Your task to perform on an android device: turn off notifications in google photos Image 0: 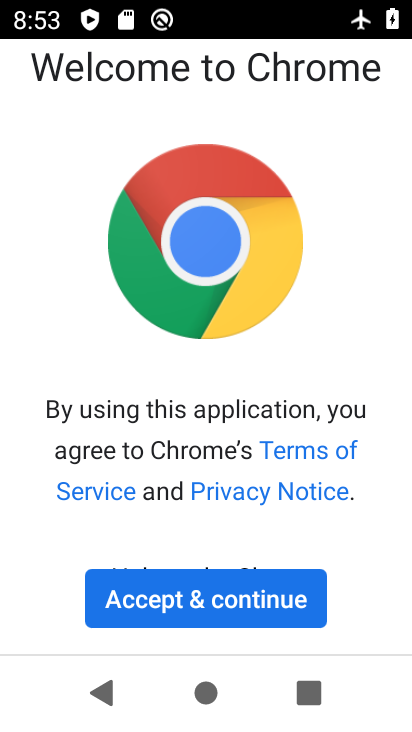
Step 0: press home button
Your task to perform on an android device: turn off notifications in google photos Image 1: 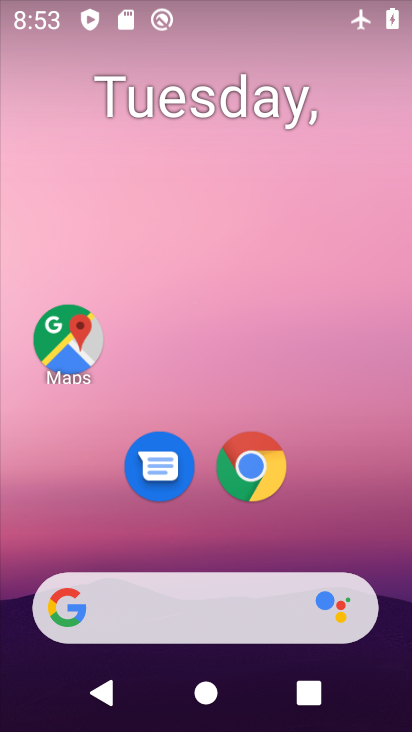
Step 1: drag from (332, 522) to (333, 155)
Your task to perform on an android device: turn off notifications in google photos Image 2: 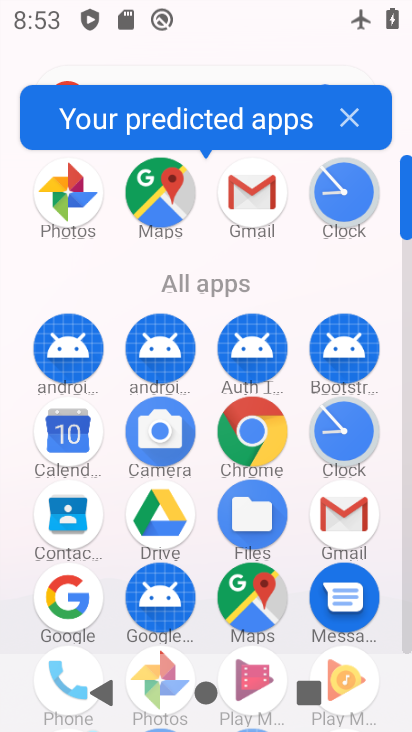
Step 2: drag from (299, 584) to (341, 318)
Your task to perform on an android device: turn off notifications in google photos Image 3: 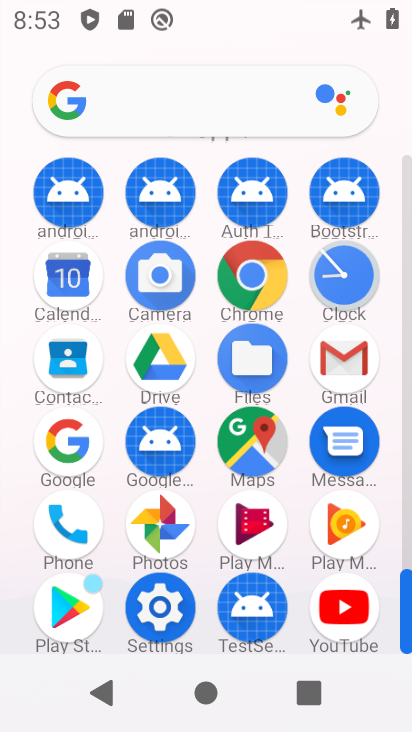
Step 3: click (163, 524)
Your task to perform on an android device: turn off notifications in google photos Image 4: 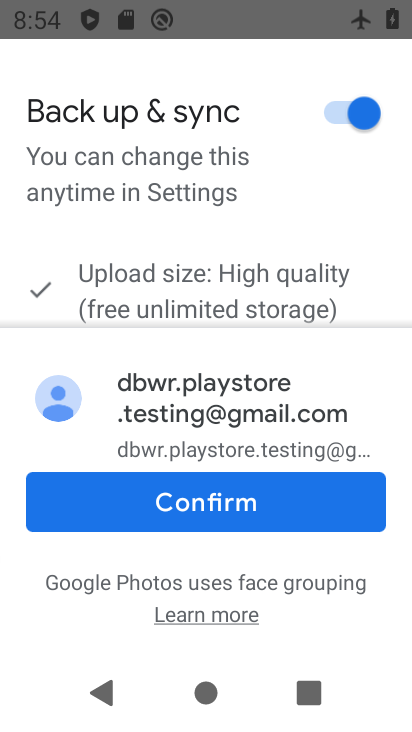
Step 4: click (182, 509)
Your task to perform on an android device: turn off notifications in google photos Image 5: 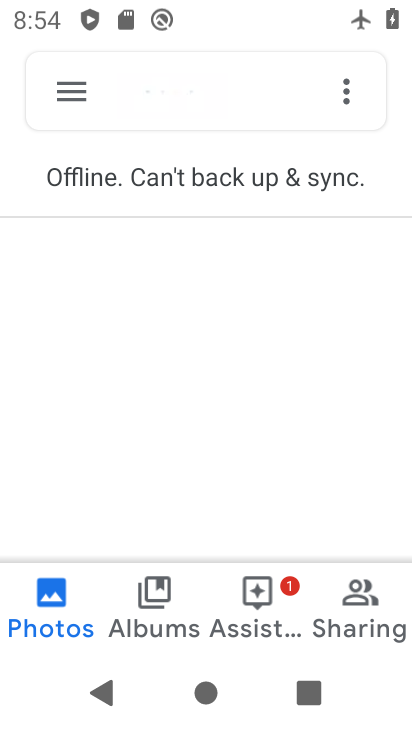
Step 5: click (79, 90)
Your task to perform on an android device: turn off notifications in google photos Image 6: 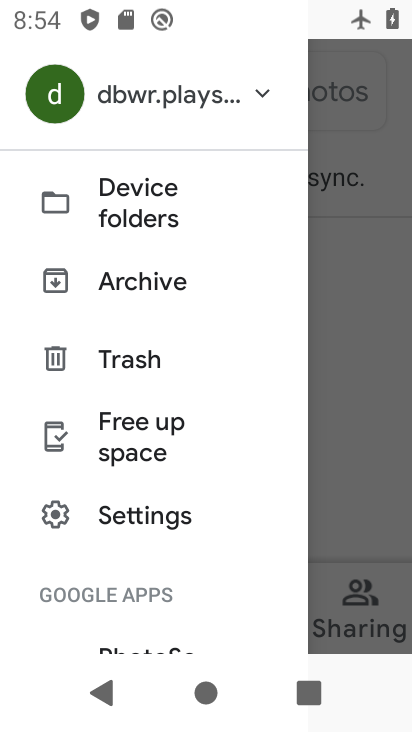
Step 6: drag from (143, 574) to (302, 87)
Your task to perform on an android device: turn off notifications in google photos Image 7: 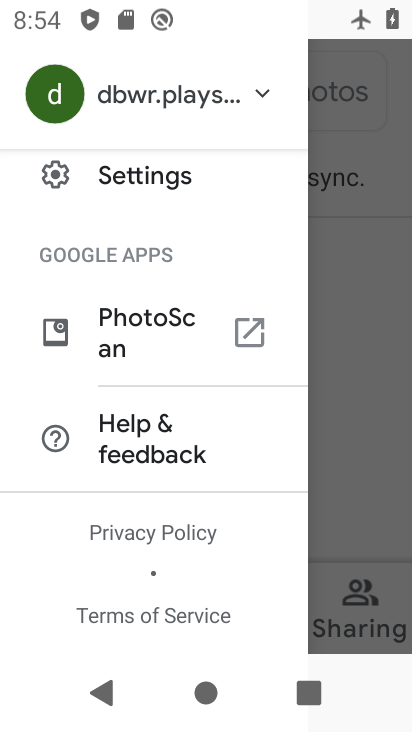
Step 7: drag from (142, 540) to (218, 222)
Your task to perform on an android device: turn off notifications in google photos Image 8: 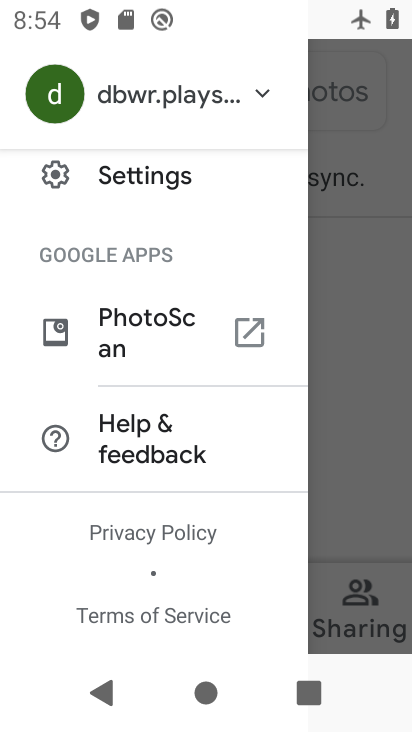
Step 8: drag from (176, 540) to (223, 239)
Your task to perform on an android device: turn off notifications in google photos Image 9: 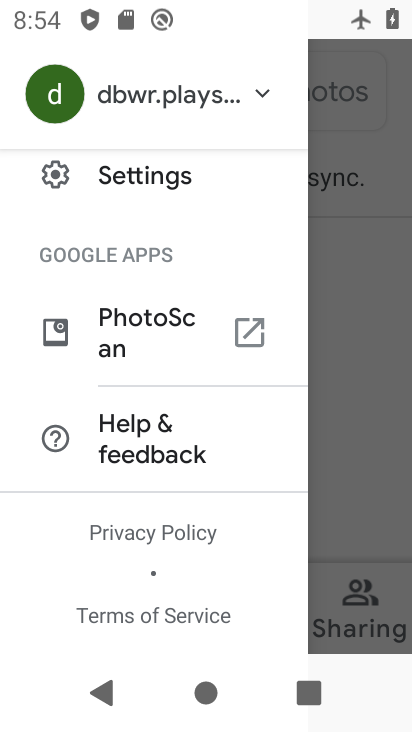
Step 9: click (148, 180)
Your task to perform on an android device: turn off notifications in google photos Image 10: 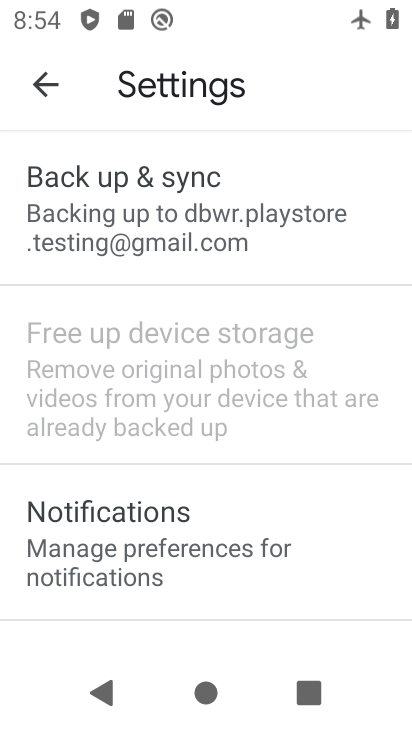
Step 10: drag from (301, 564) to (333, 186)
Your task to perform on an android device: turn off notifications in google photos Image 11: 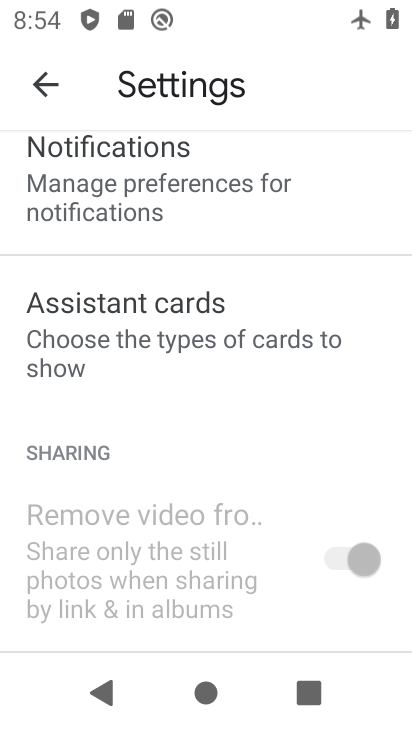
Step 11: drag from (184, 525) to (298, 246)
Your task to perform on an android device: turn off notifications in google photos Image 12: 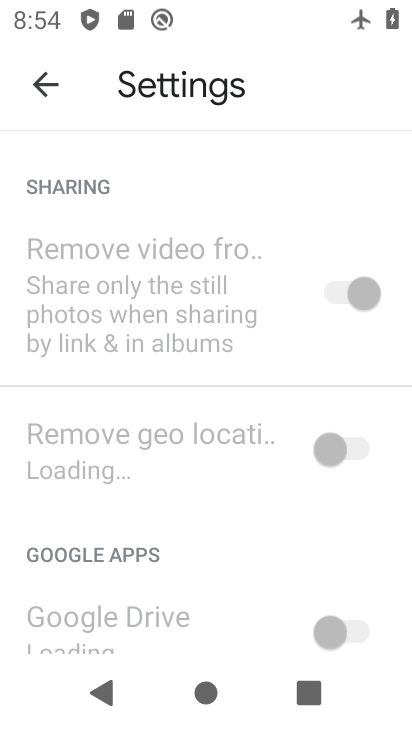
Step 12: drag from (182, 579) to (265, 149)
Your task to perform on an android device: turn off notifications in google photos Image 13: 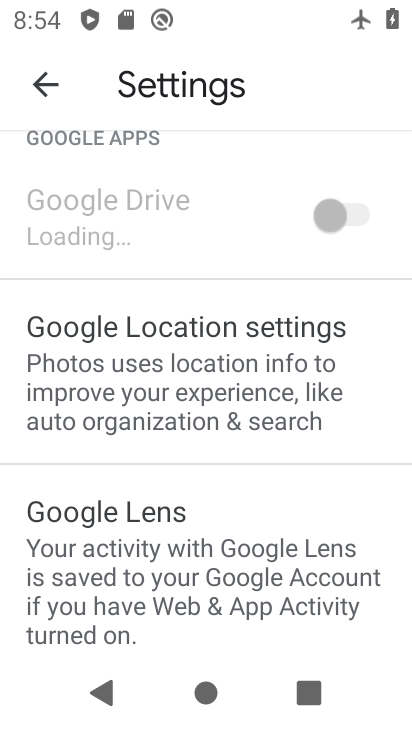
Step 13: drag from (203, 541) to (267, 232)
Your task to perform on an android device: turn off notifications in google photos Image 14: 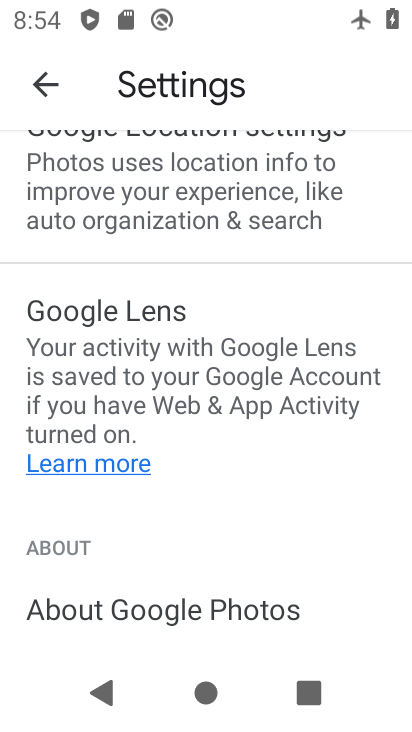
Step 14: drag from (235, 574) to (283, 259)
Your task to perform on an android device: turn off notifications in google photos Image 15: 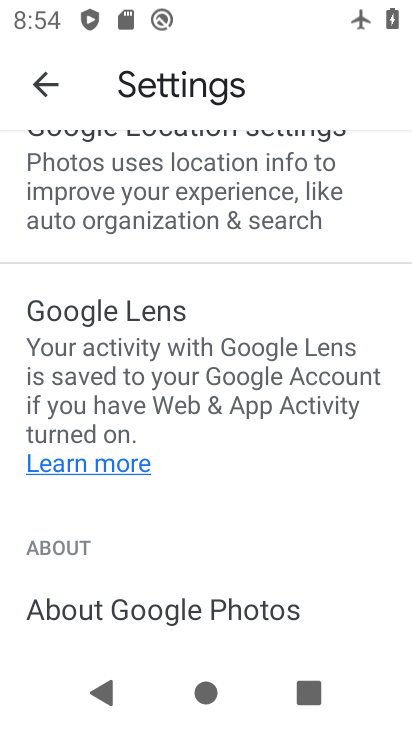
Step 15: drag from (146, 185) to (202, 567)
Your task to perform on an android device: turn off notifications in google photos Image 16: 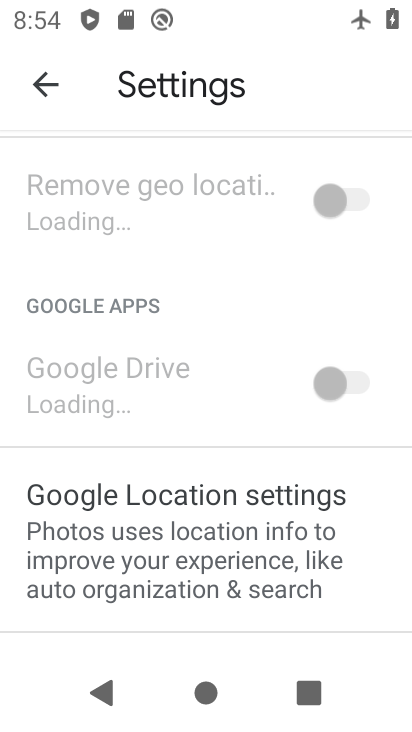
Step 16: drag from (197, 199) to (207, 686)
Your task to perform on an android device: turn off notifications in google photos Image 17: 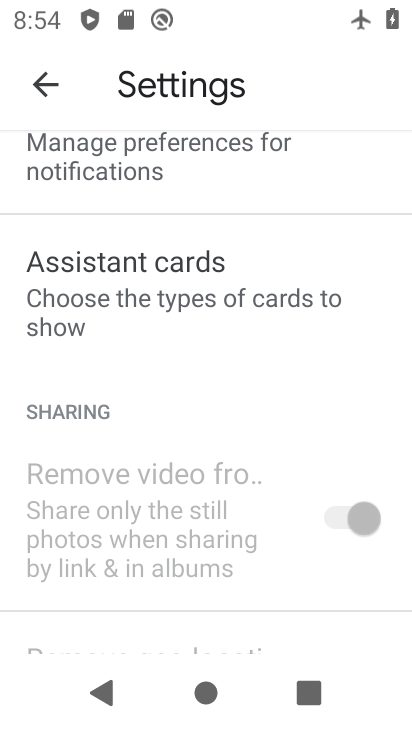
Step 17: drag from (252, 246) to (235, 656)
Your task to perform on an android device: turn off notifications in google photos Image 18: 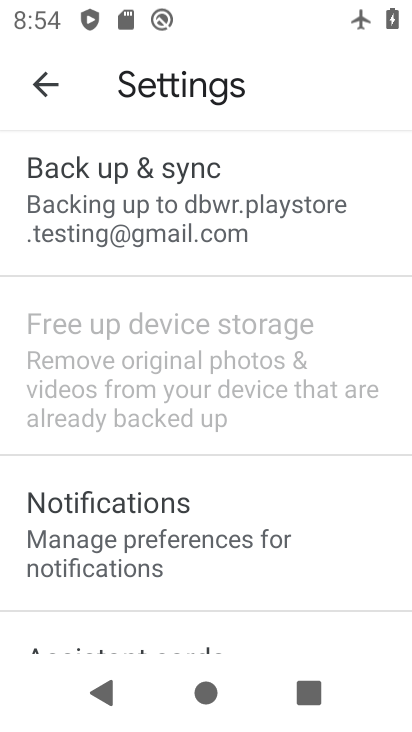
Step 18: drag from (178, 533) to (208, 297)
Your task to perform on an android device: turn off notifications in google photos Image 19: 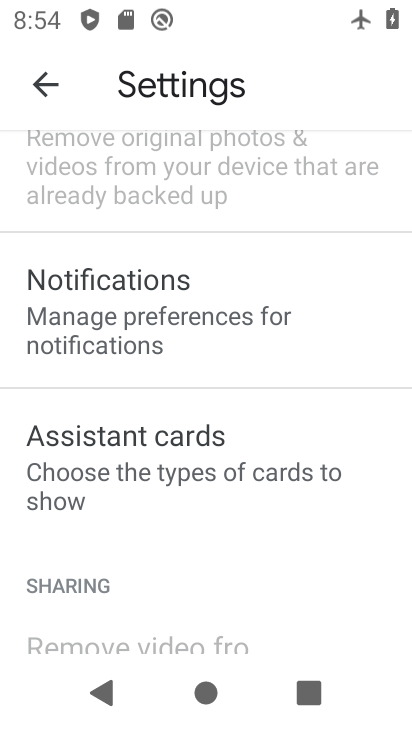
Step 19: click (205, 319)
Your task to perform on an android device: turn off notifications in google photos Image 20: 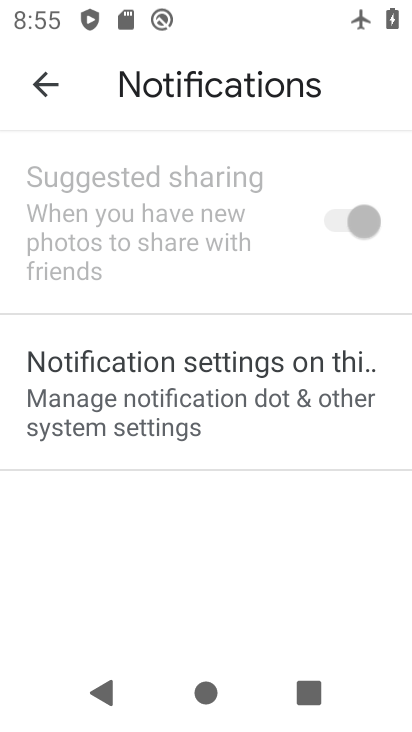
Step 20: click (207, 374)
Your task to perform on an android device: turn off notifications in google photos Image 21: 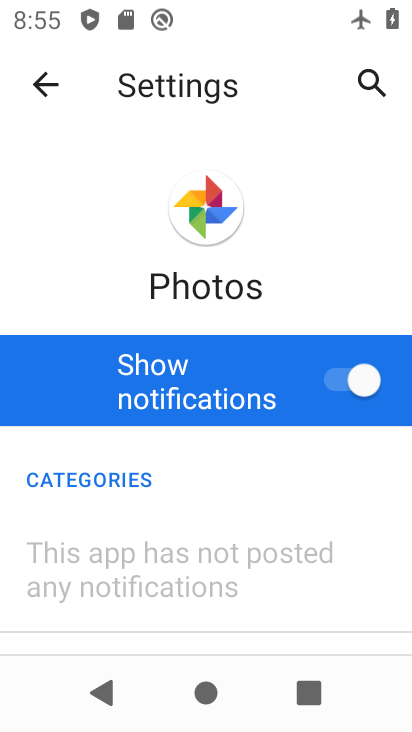
Step 21: click (345, 387)
Your task to perform on an android device: turn off notifications in google photos Image 22: 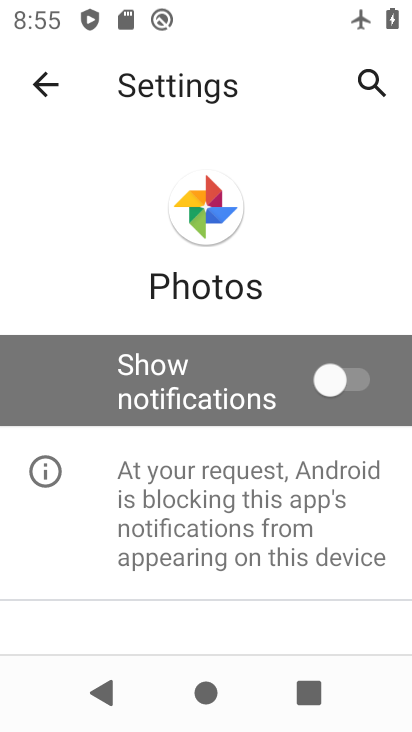
Step 22: task complete